Your task to perform on an android device: toggle javascript in the chrome app Image 0: 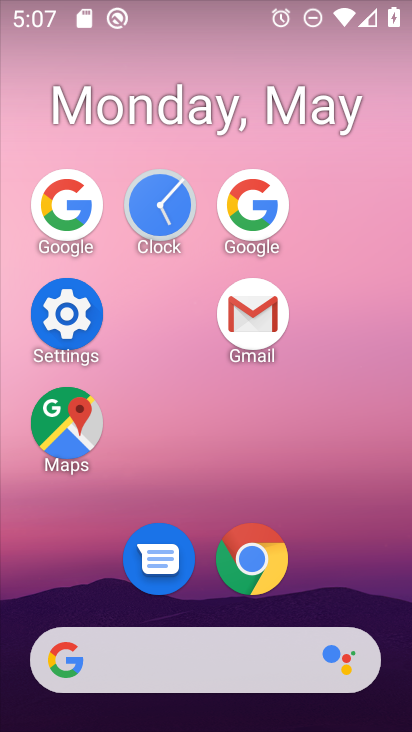
Step 0: click (230, 562)
Your task to perform on an android device: toggle javascript in the chrome app Image 1: 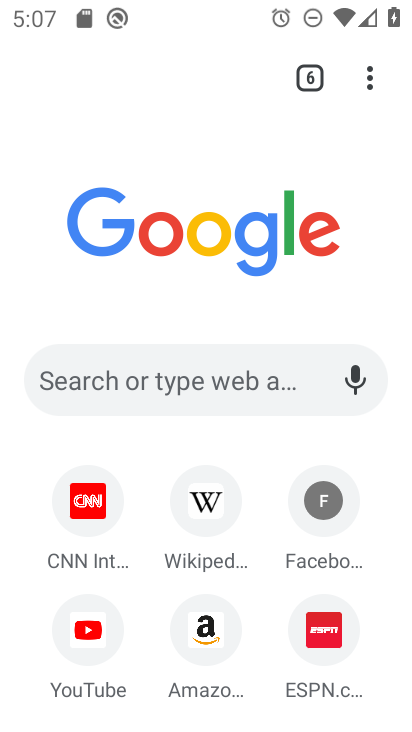
Step 1: click (372, 79)
Your task to perform on an android device: toggle javascript in the chrome app Image 2: 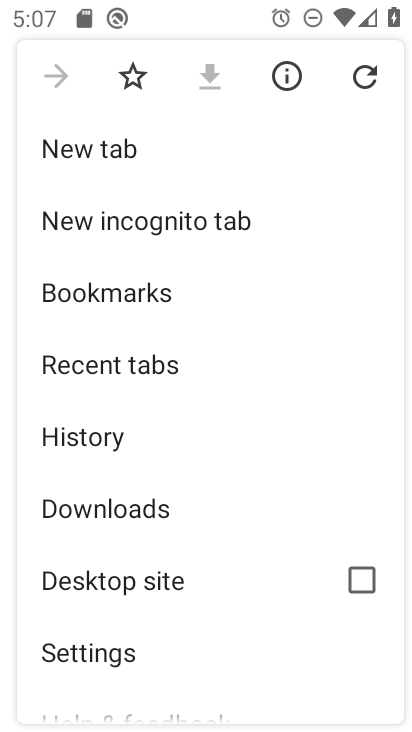
Step 2: click (364, 76)
Your task to perform on an android device: toggle javascript in the chrome app Image 3: 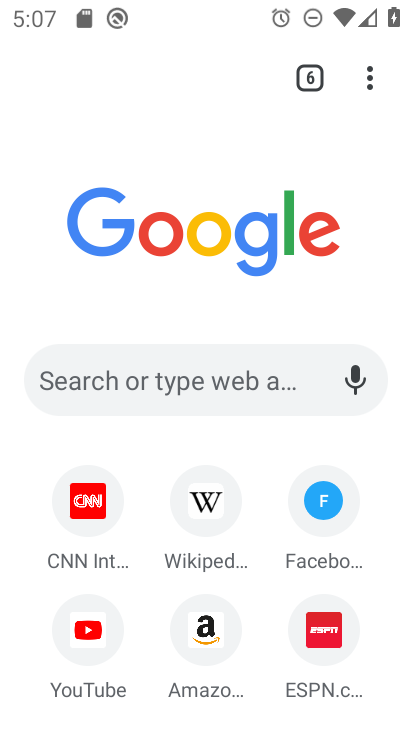
Step 3: click (380, 84)
Your task to perform on an android device: toggle javascript in the chrome app Image 4: 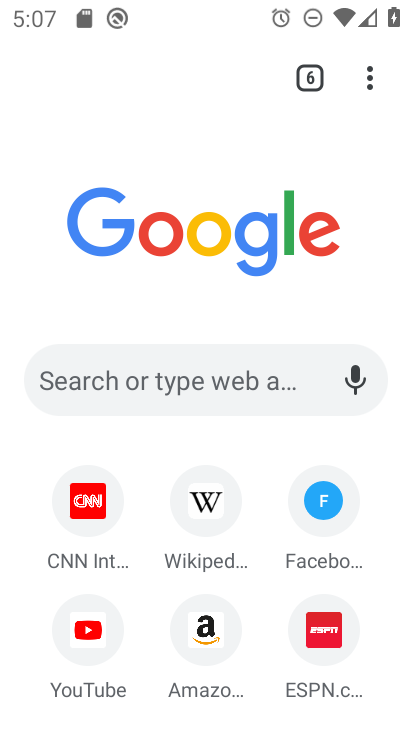
Step 4: click (376, 71)
Your task to perform on an android device: toggle javascript in the chrome app Image 5: 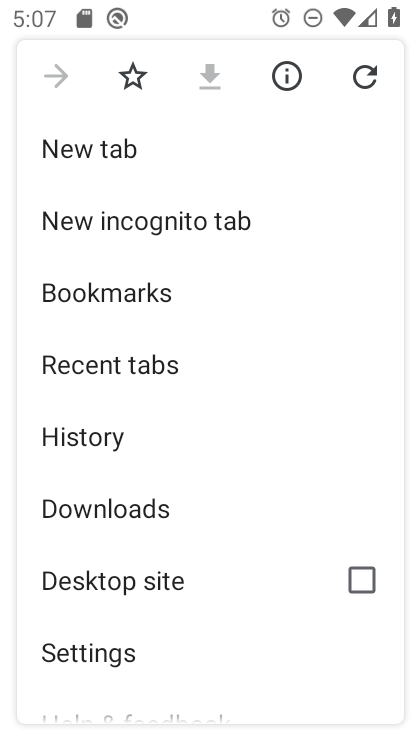
Step 5: drag from (272, 482) to (247, 174)
Your task to perform on an android device: toggle javascript in the chrome app Image 6: 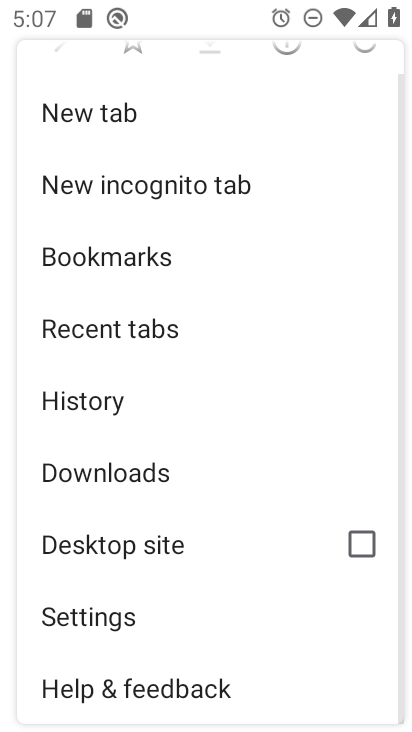
Step 6: click (154, 613)
Your task to perform on an android device: toggle javascript in the chrome app Image 7: 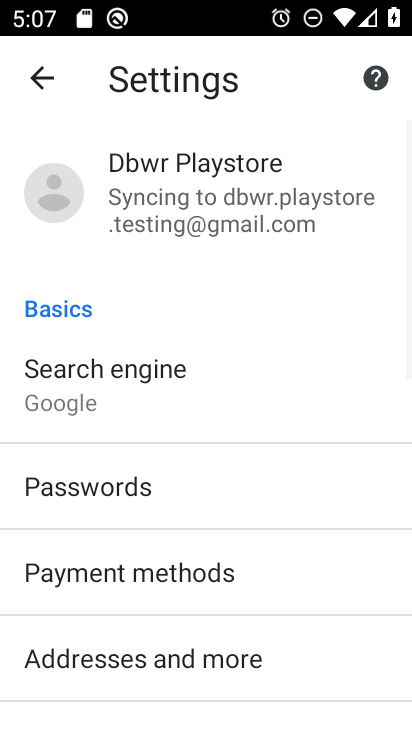
Step 7: drag from (154, 613) to (142, 106)
Your task to perform on an android device: toggle javascript in the chrome app Image 8: 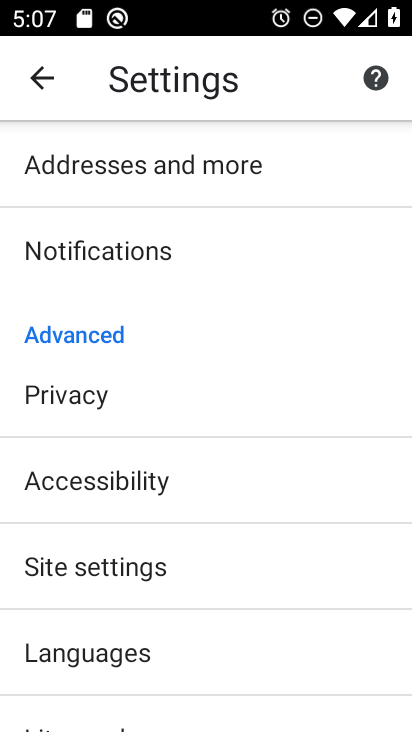
Step 8: drag from (181, 641) to (199, 277)
Your task to perform on an android device: toggle javascript in the chrome app Image 9: 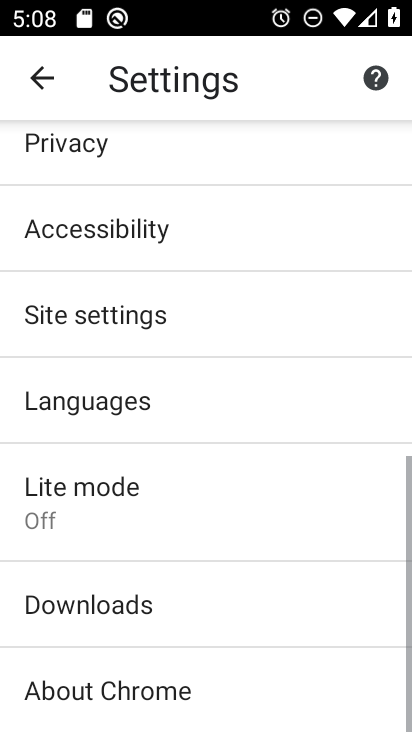
Step 9: click (155, 329)
Your task to perform on an android device: toggle javascript in the chrome app Image 10: 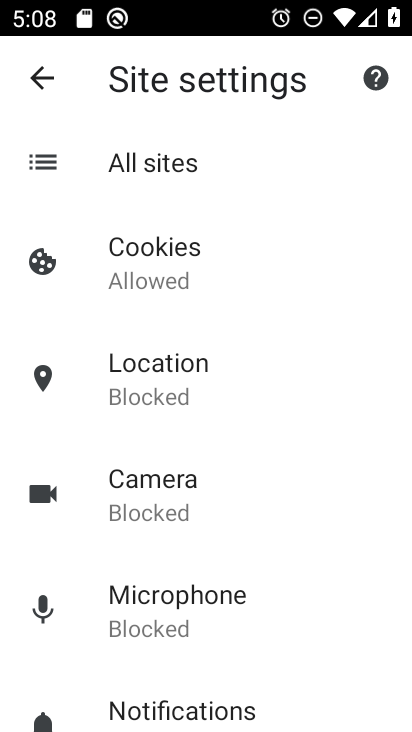
Step 10: drag from (260, 624) to (285, 212)
Your task to perform on an android device: toggle javascript in the chrome app Image 11: 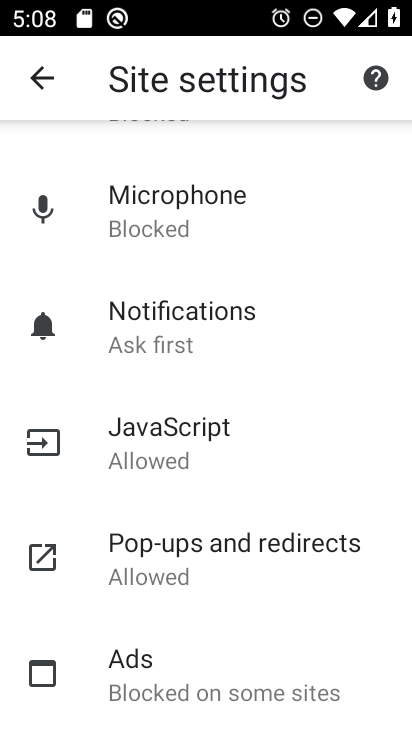
Step 11: click (267, 449)
Your task to perform on an android device: toggle javascript in the chrome app Image 12: 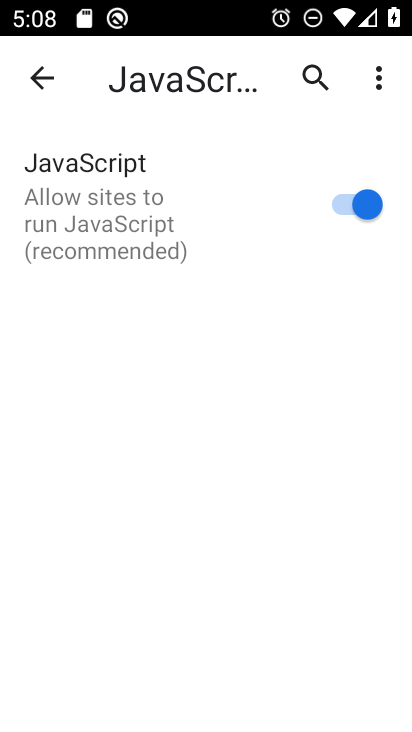
Step 12: click (377, 192)
Your task to perform on an android device: toggle javascript in the chrome app Image 13: 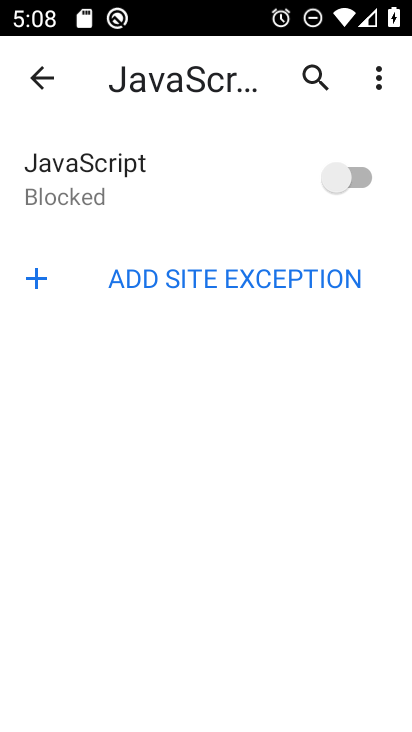
Step 13: task complete